Your task to perform on an android device: Open the calendar app, open the side menu, and click the "Day" option Image 0: 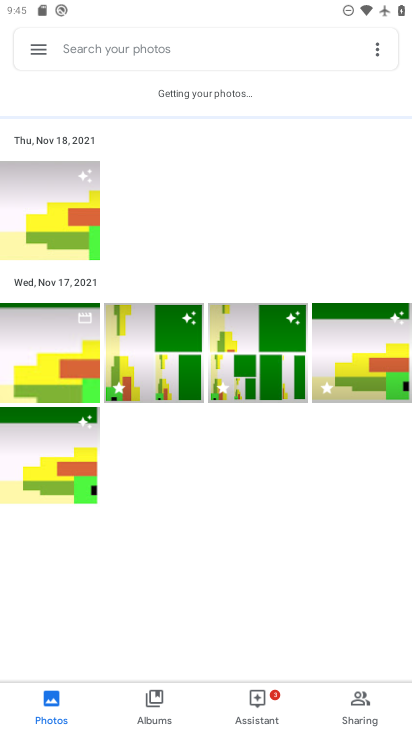
Step 0: press home button
Your task to perform on an android device: Open the calendar app, open the side menu, and click the "Day" option Image 1: 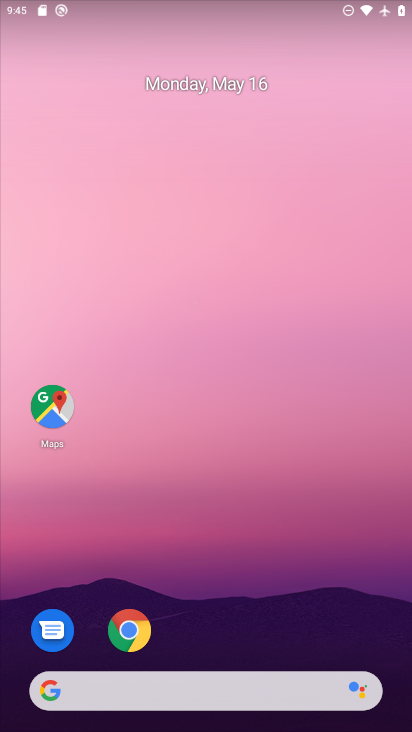
Step 1: drag from (228, 641) to (227, 191)
Your task to perform on an android device: Open the calendar app, open the side menu, and click the "Day" option Image 2: 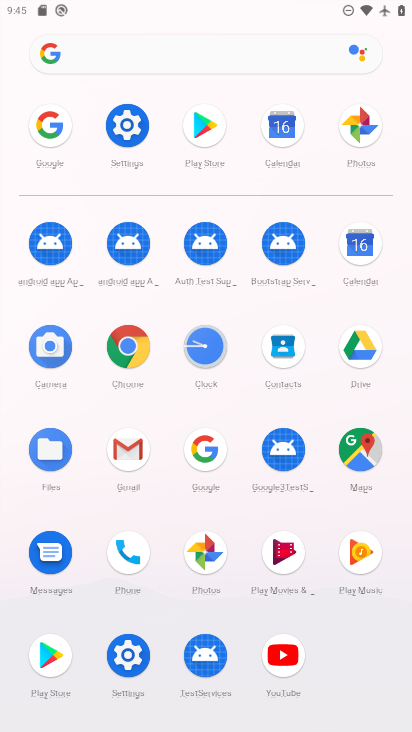
Step 2: click (353, 249)
Your task to perform on an android device: Open the calendar app, open the side menu, and click the "Day" option Image 3: 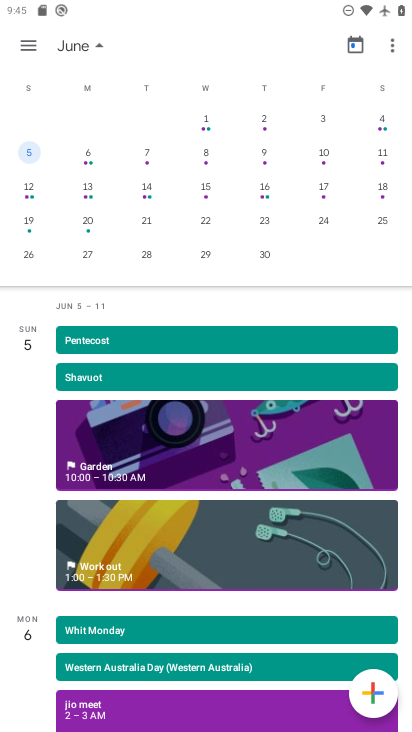
Step 3: click (27, 40)
Your task to perform on an android device: Open the calendar app, open the side menu, and click the "Day" option Image 4: 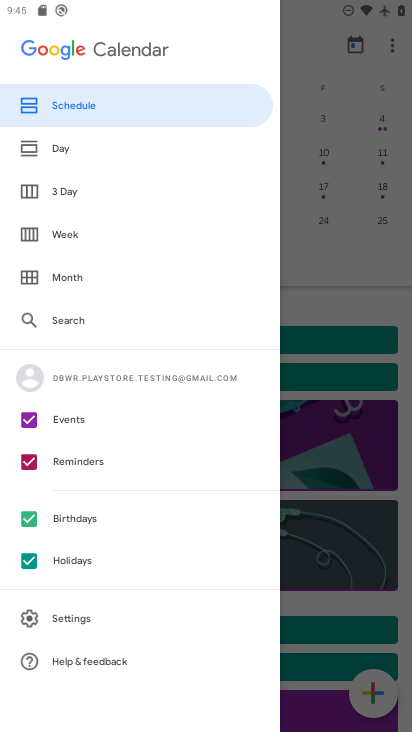
Step 4: click (101, 145)
Your task to perform on an android device: Open the calendar app, open the side menu, and click the "Day" option Image 5: 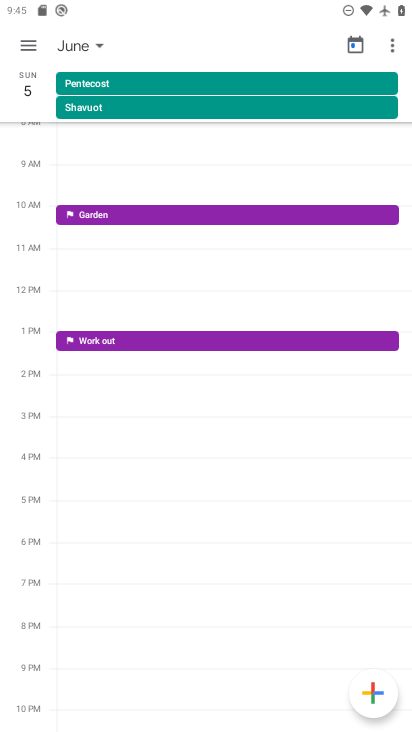
Step 5: task complete